Your task to perform on an android device: Open Youtube and go to the subscriptions tab Image 0: 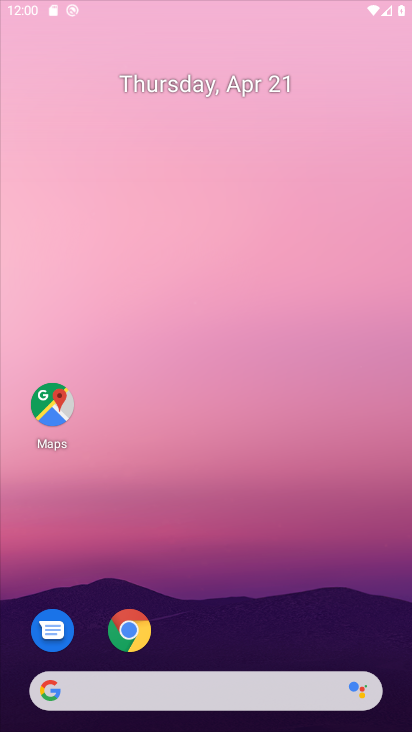
Step 0: click (347, 95)
Your task to perform on an android device: Open Youtube and go to the subscriptions tab Image 1: 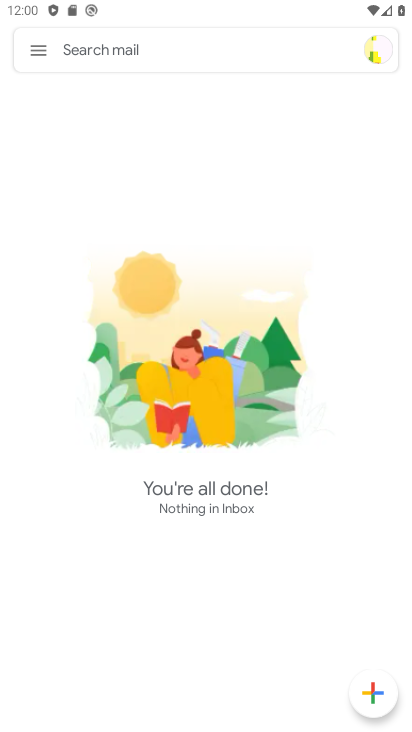
Step 1: press home button
Your task to perform on an android device: Open Youtube and go to the subscriptions tab Image 2: 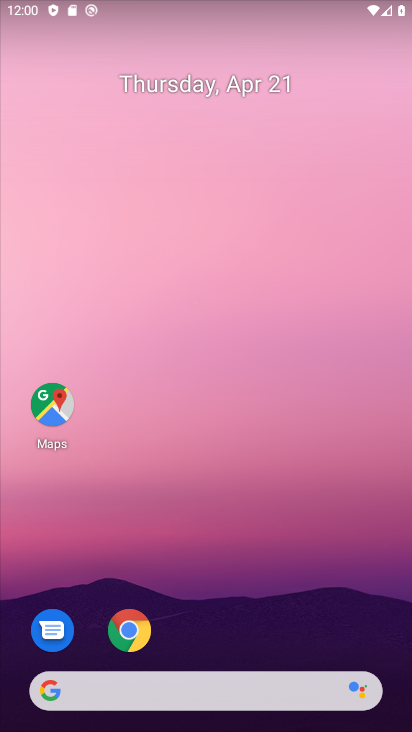
Step 2: drag from (338, 581) to (386, 97)
Your task to perform on an android device: Open Youtube and go to the subscriptions tab Image 3: 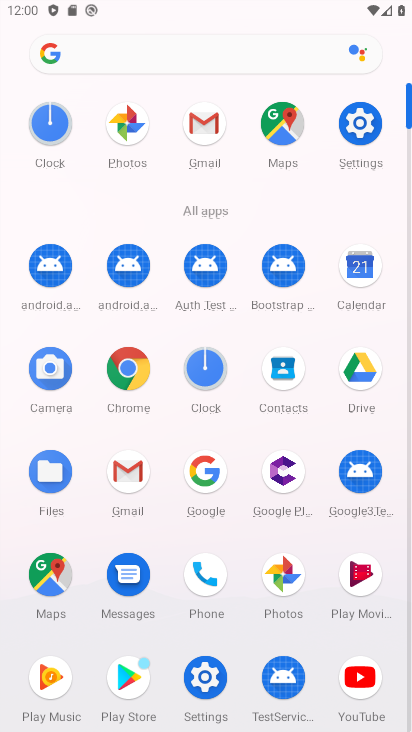
Step 3: drag from (387, 502) to (362, 273)
Your task to perform on an android device: Open Youtube and go to the subscriptions tab Image 4: 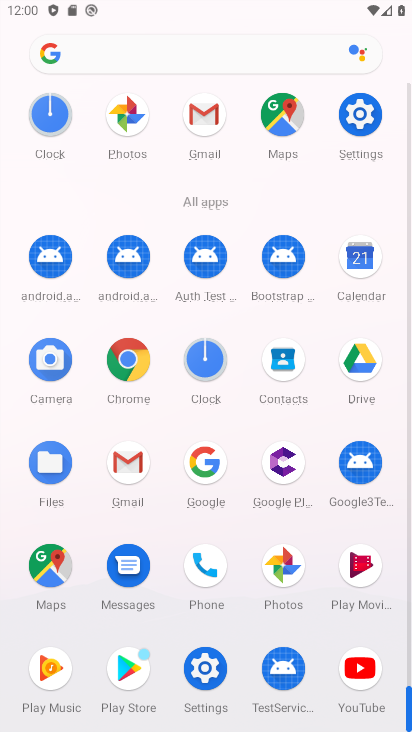
Step 4: click (378, 675)
Your task to perform on an android device: Open Youtube and go to the subscriptions tab Image 5: 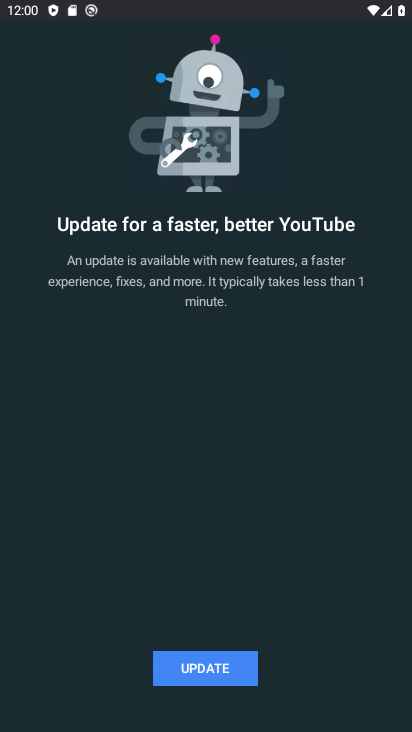
Step 5: press home button
Your task to perform on an android device: Open Youtube and go to the subscriptions tab Image 6: 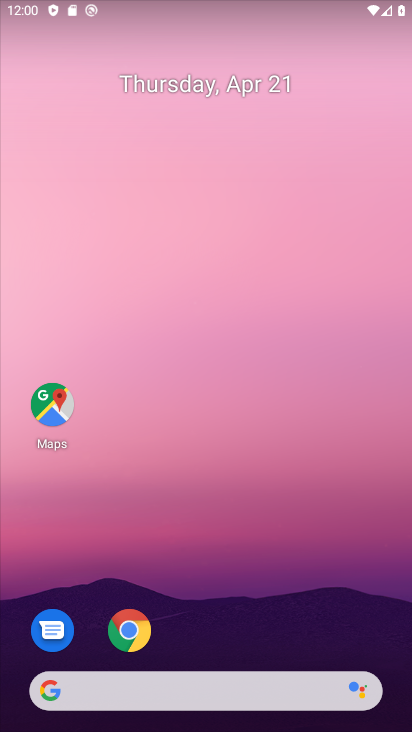
Step 6: drag from (265, 581) to (285, 127)
Your task to perform on an android device: Open Youtube and go to the subscriptions tab Image 7: 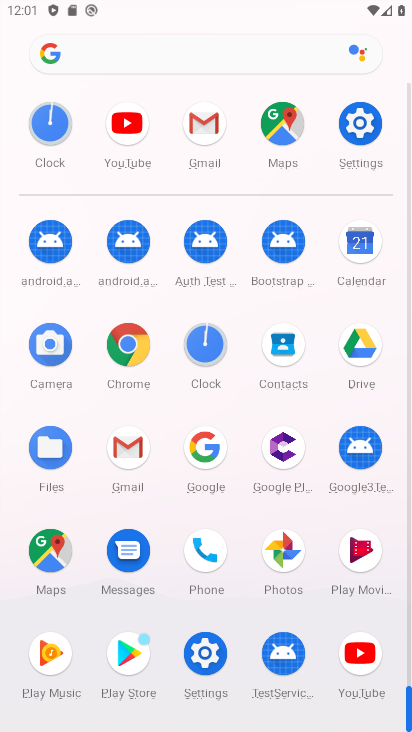
Step 7: click (141, 120)
Your task to perform on an android device: Open Youtube and go to the subscriptions tab Image 8: 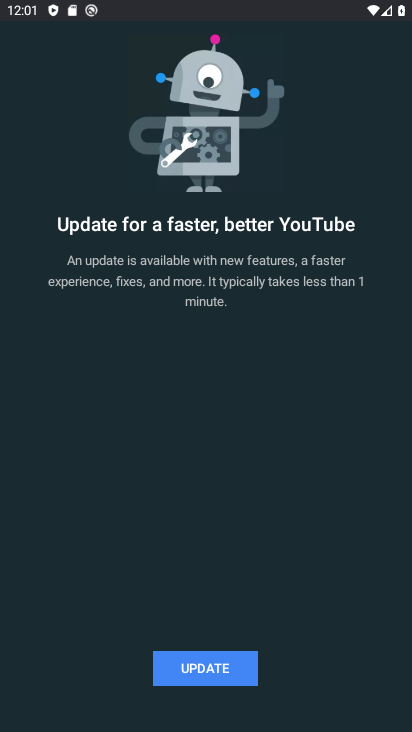
Step 8: click (216, 660)
Your task to perform on an android device: Open Youtube and go to the subscriptions tab Image 9: 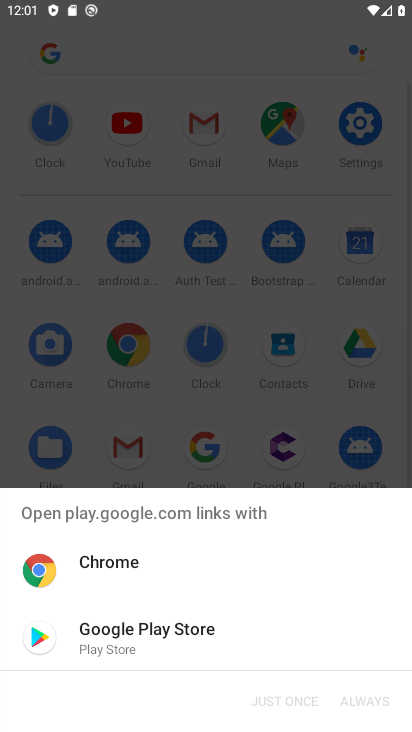
Step 9: click (116, 634)
Your task to perform on an android device: Open Youtube and go to the subscriptions tab Image 10: 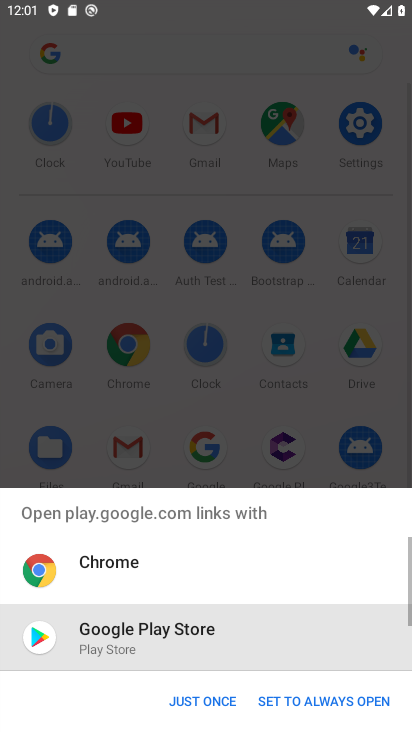
Step 10: click (175, 709)
Your task to perform on an android device: Open Youtube and go to the subscriptions tab Image 11: 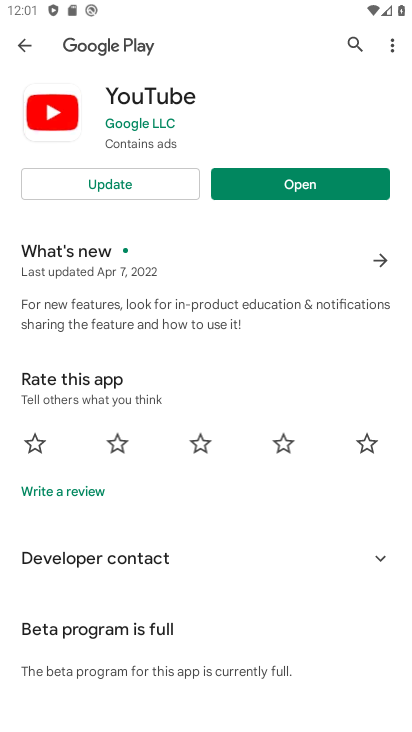
Step 11: click (109, 177)
Your task to perform on an android device: Open Youtube and go to the subscriptions tab Image 12: 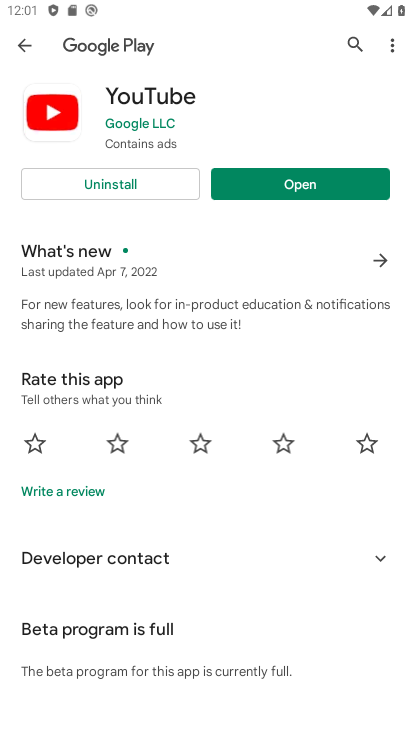
Step 12: click (303, 190)
Your task to perform on an android device: Open Youtube and go to the subscriptions tab Image 13: 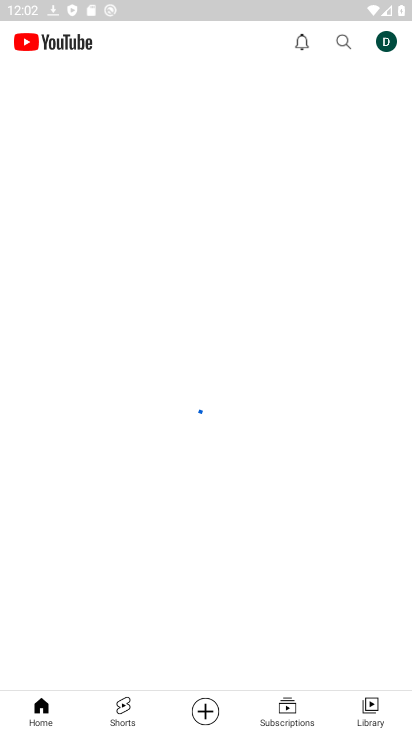
Step 13: click (288, 715)
Your task to perform on an android device: Open Youtube and go to the subscriptions tab Image 14: 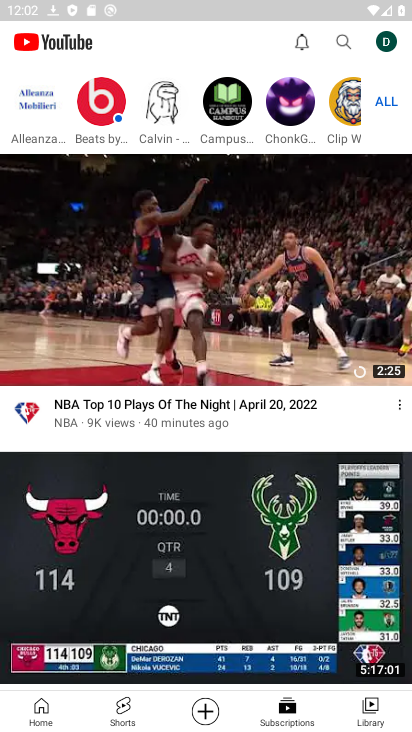
Step 14: task complete